Your task to perform on an android device: open app "Google Play Music" Image 0: 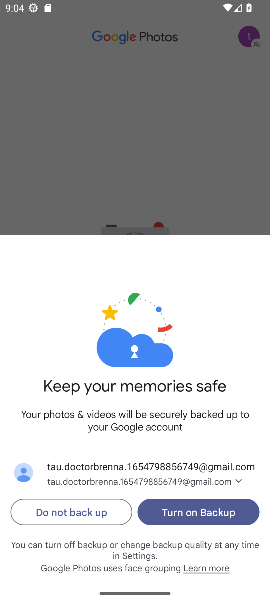
Step 0: click (172, 168)
Your task to perform on an android device: open app "Google Play Music" Image 1: 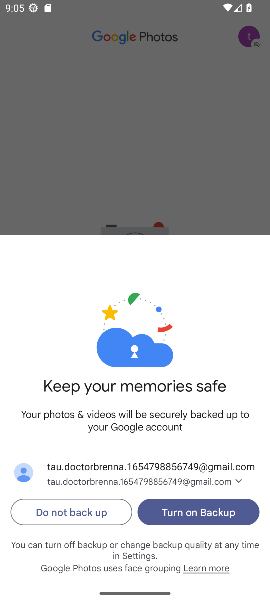
Step 1: press home button
Your task to perform on an android device: open app "Google Play Music" Image 2: 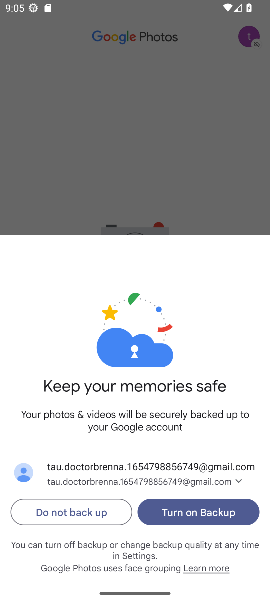
Step 2: press home button
Your task to perform on an android device: open app "Google Play Music" Image 3: 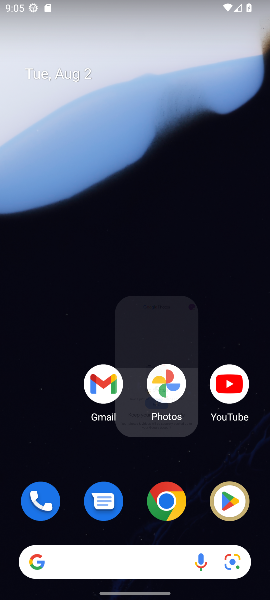
Step 3: drag from (138, 512) to (254, 50)
Your task to perform on an android device: open app "Google Play Music" Image 4: 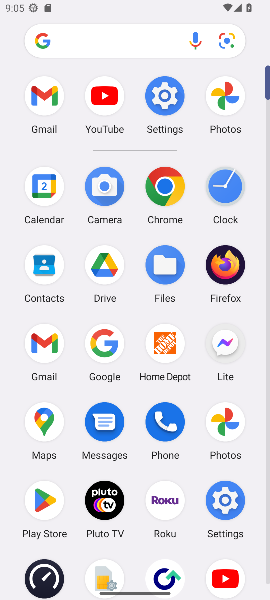
Step 4: click (32, 490)
Your task to perform on an android device: open app "Google Play Music" Image 5: 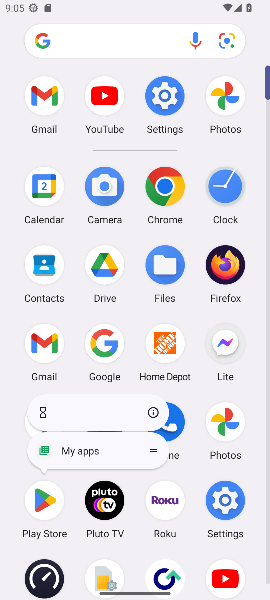
Step 5: click (146, 409)
Your task to perform on an android device: open app "Google Play Music" Image 6: 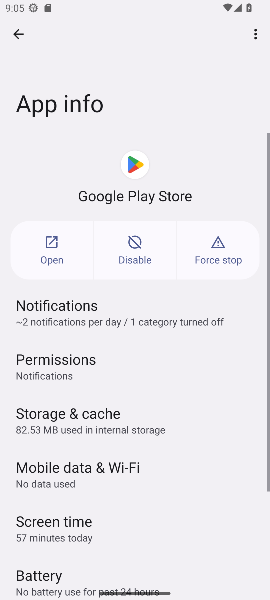
Step 6: click (43, 235)
Your task to perform on an android device: open app "Google Play Music" Image 7: 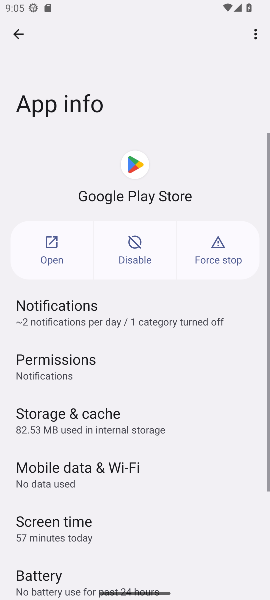
Step 7: click (43, 235)
Your task to perform on an android device: open app "Google Play Music" Image 8: 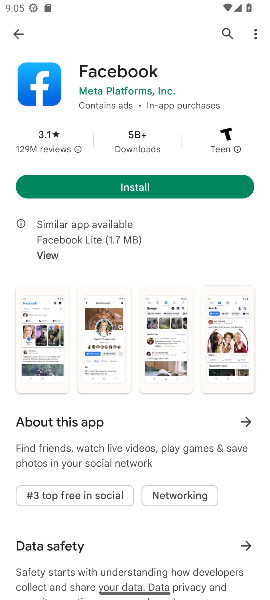
Step 8: drag from (136, 428) to (171, 599)
Your task to perform on an android device: open app "Google Play Music" Image 9: 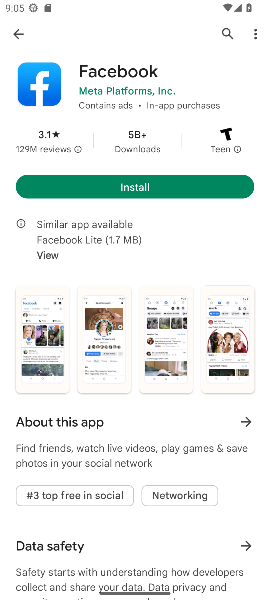
Step 9: click (232, 29)
Your task to perform on an android device: open app "Google Play Music" Image 10: 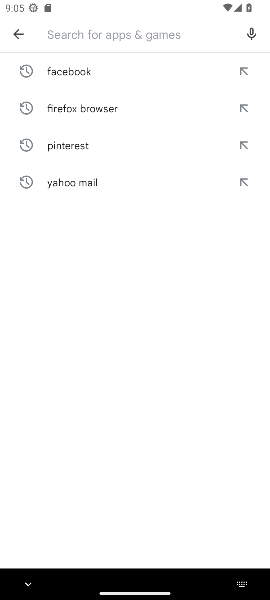
Step 10: type "Google Play Music"
Your task to perform on an android device: open app "Google Play Music" Image 11: 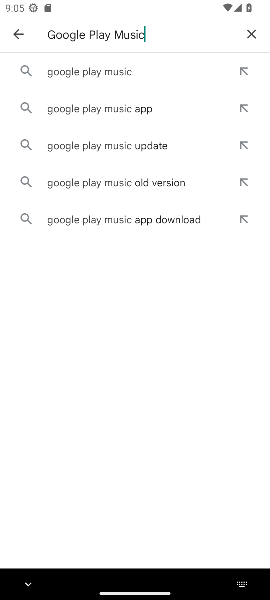
Step 11: click (95, 78)
Your task to perform on an android device: open app "Google Play Music" Image 12: 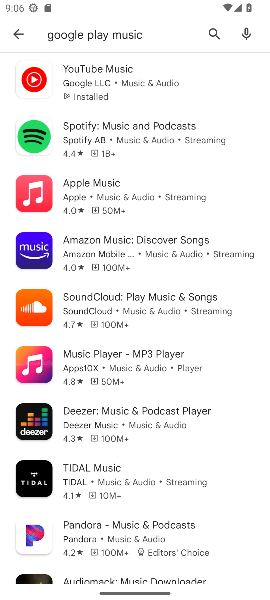
Step 12: task complete